Your task to perform on an android device: empty trash in the gmail app Image 0: 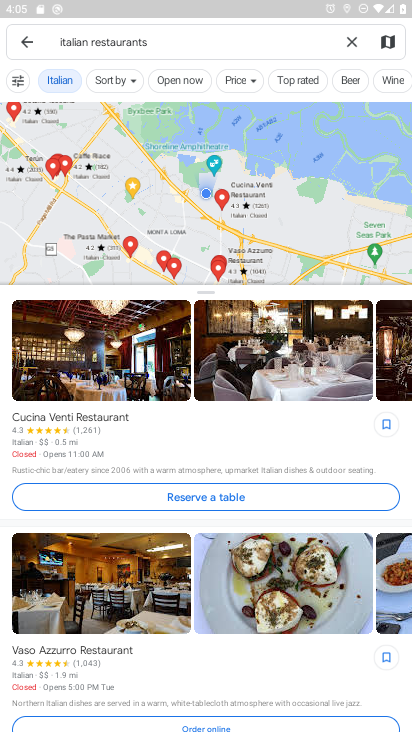
Step 0: press home button
Your task to perform on an android device: empty trash in the gmail app Image 1: 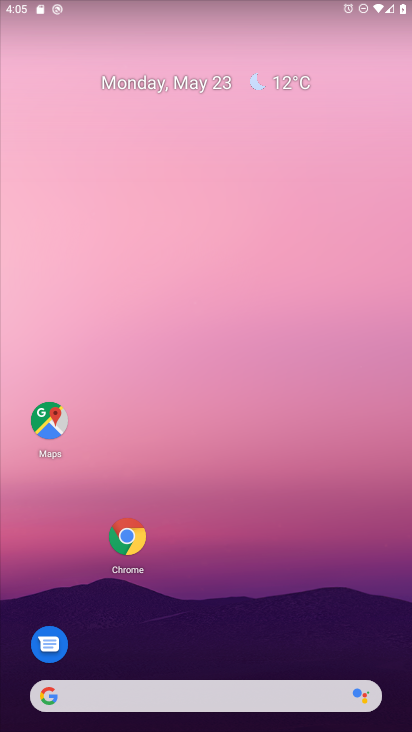
Step 1: drag from (277, 587) to (237, 114)
Your task to perform on an android device: empty trash in the gmail app Image 2: 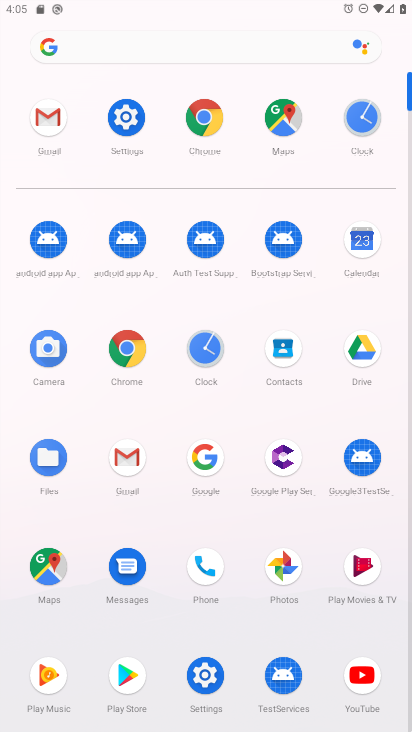
Step 2: click (55, 121)
Your task to perform on an android device: empty trash in the gmail app Image 3: 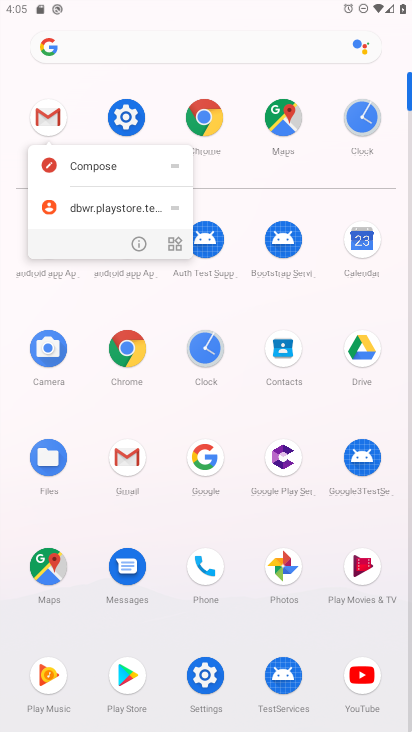
Step 3: click (52, 118)
Your task to perform on an android device: empty trash in the gmail app Image 4: 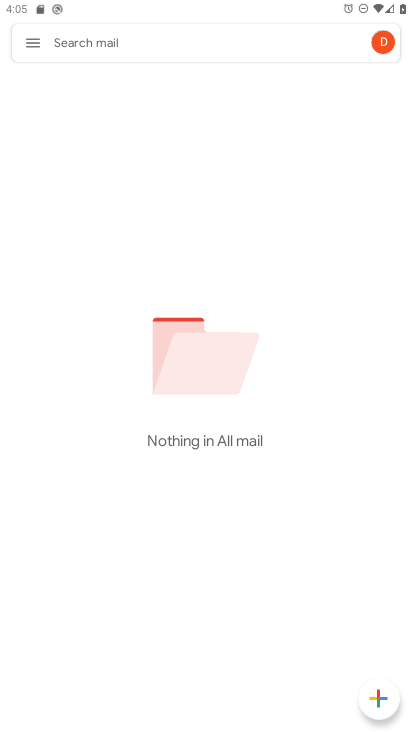
Step 4: click (52, 117)
Your task to perform on an android device: empty trash in the gmail app Image 5: 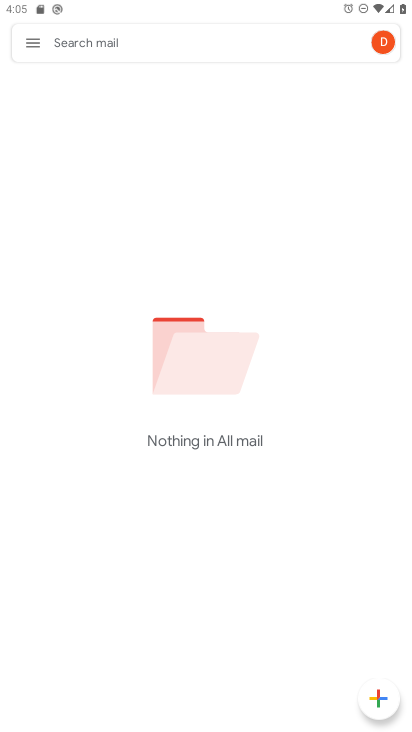
Step 5: click (29, 39)
Your task to perform on an android device: empty trash in the gmail app Image 6: 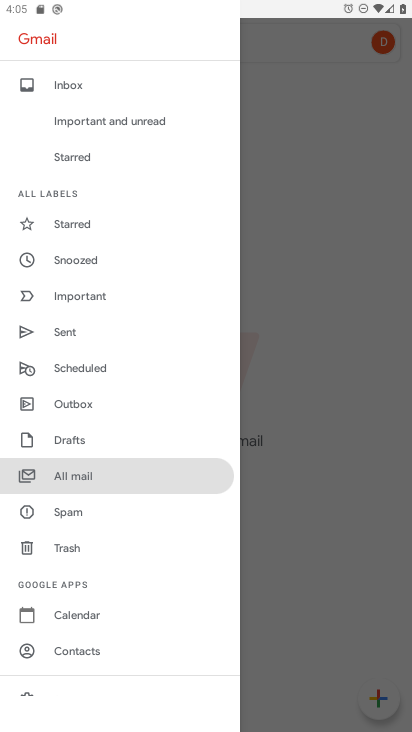
Step 6: click (78, 545)
Your task to perform on an android device: empty trash in the gmail app Image 7: 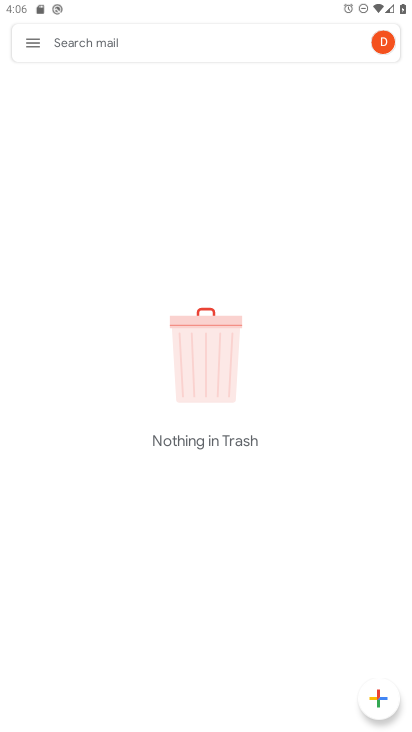
Step 7: task complete